Your task to perform on an android device: change the clock display to analog Image 0: 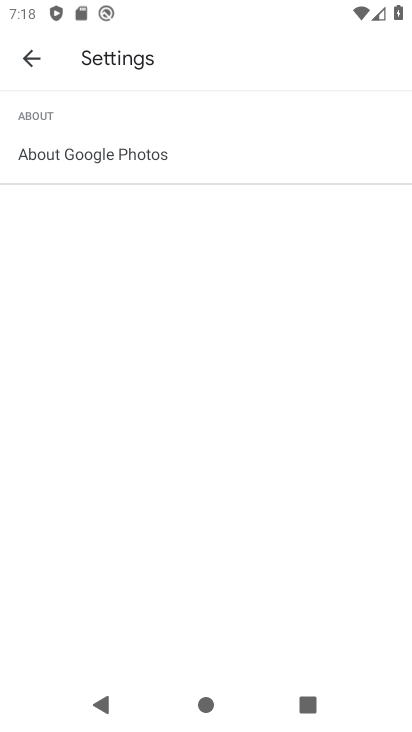
Step 0: press home button
Your task to perform on an android device: change the clock display to analog Image 1: 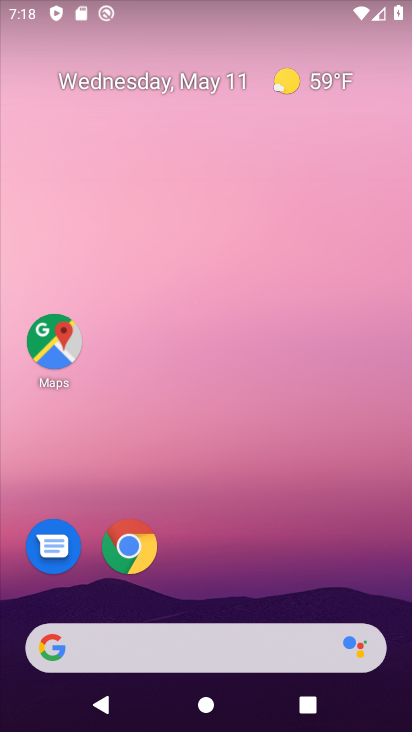
Step 1: drag from (322, 522) to (275, 172)
Your task to perform on an android device: change the clock display to analog Image 2: 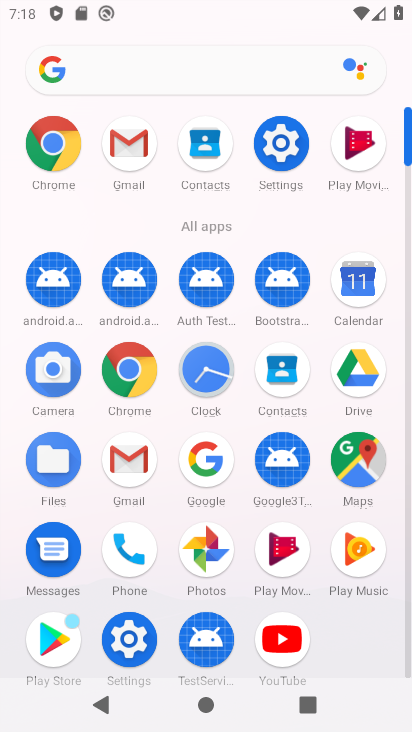
Step 2: click (208, 367)
Your task to perform on an android device: change the clock display to analog Image 3: 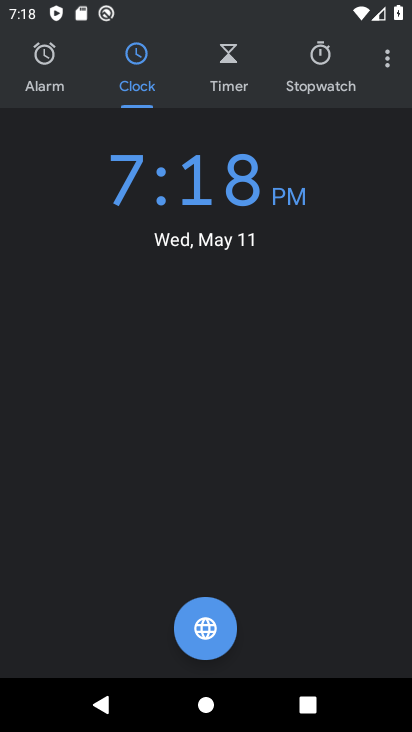
Step 3: click (387, 75)
Your task to perform on an android device: change the clock display to analog Image 4: 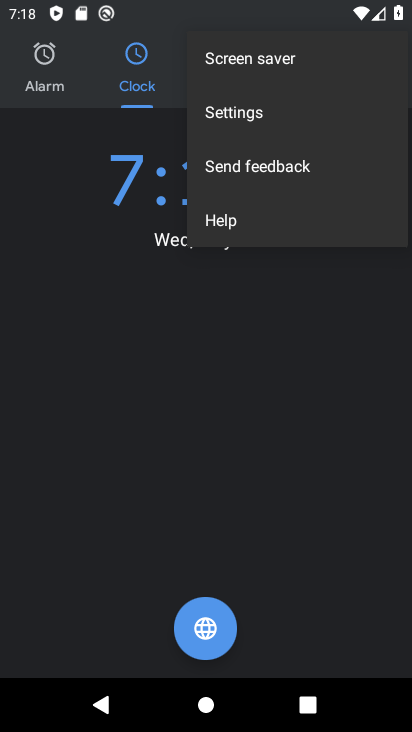
Step 4: click (285, 116)
Your task to perform on an android device: change the clock display to analog Image 5: 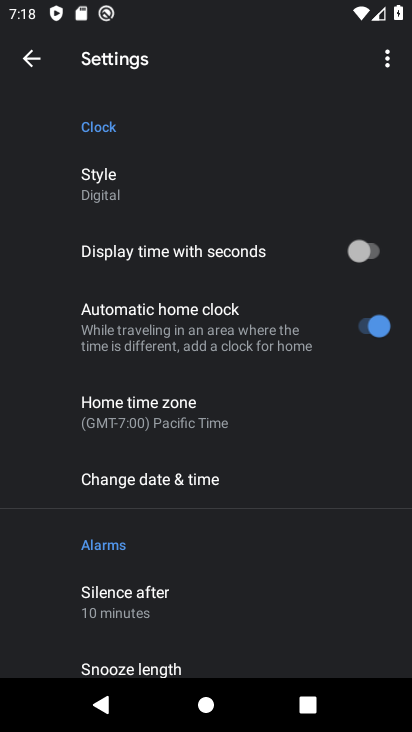
Step 5: click (177, 184)
Your task to perform on an android device: change the clock display to analog Image 6: 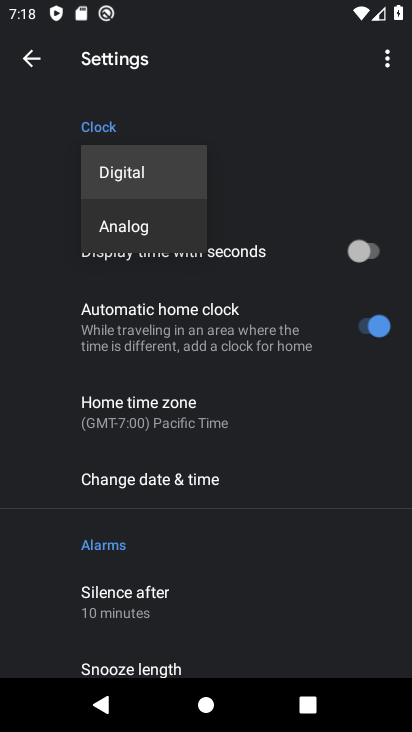
Step 6: click (161, 230)
Your task to perform on an android device: change the clock display to analog Image 7: 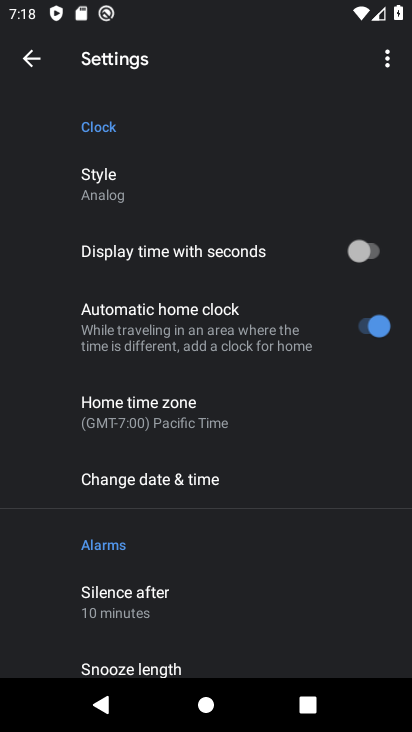
Step 7: task complete